Your task to perform on an android device: Open Google Maps and go to "Timeline" Image 0: 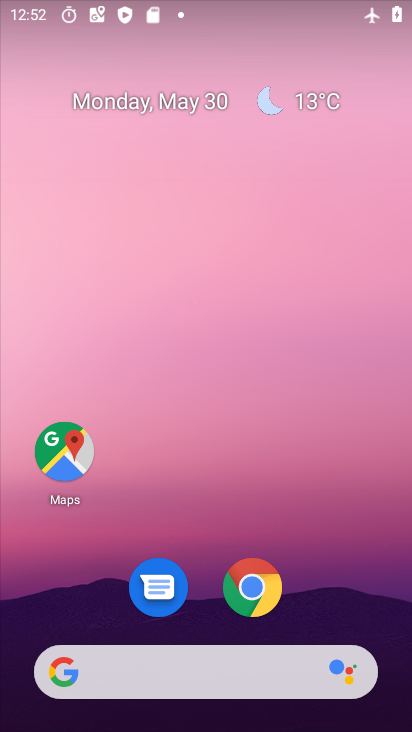
Step 0: click (58, 446)
Your task to perform on an android device: Open Google Maps and go to "Timeline" Image 1: 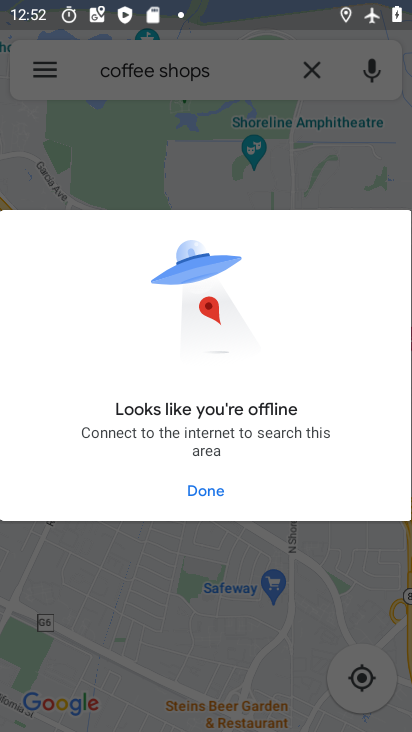
Step 1: click (204, 485)
Your task to perform on an android device: Open Google Maps and go to "Timeline" Image 2: 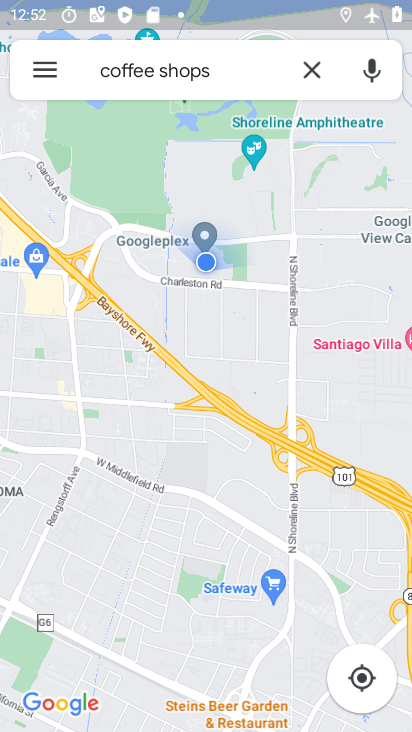
Step 2: click (40, 63)
Your task to perform on an android device: Open Google Maps and go to "Timeline" Image 3: 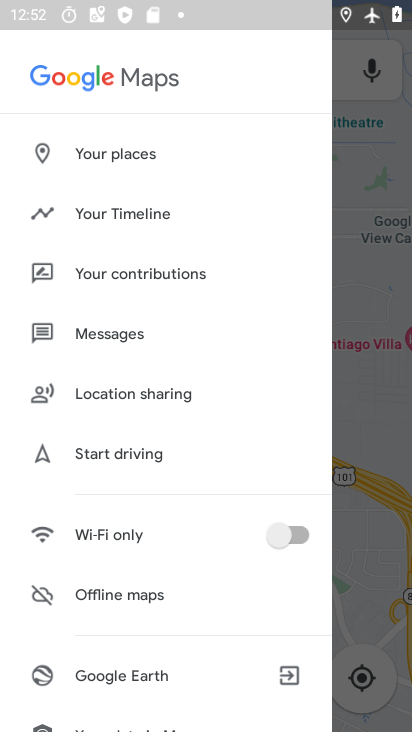
Step 3: drag from (166, 560) to (166, 656)
Your task to perform on an android device: Open Google Maps and go to "Timeline" Image 4: 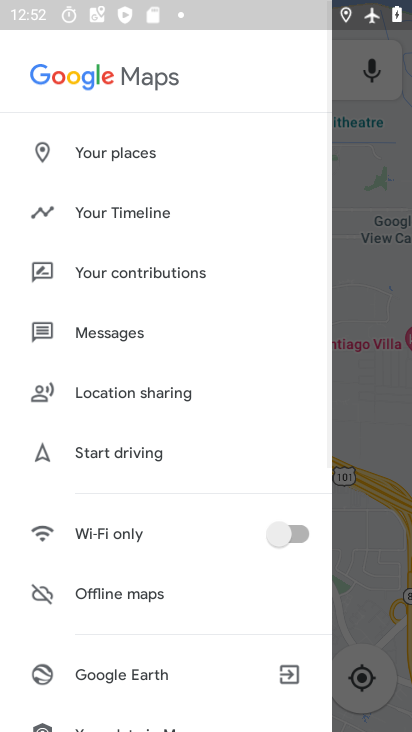
Step 4: click (145, 227)
Your task to perform on an android device: Open Google Maps and go to "Timeline" Image 5: 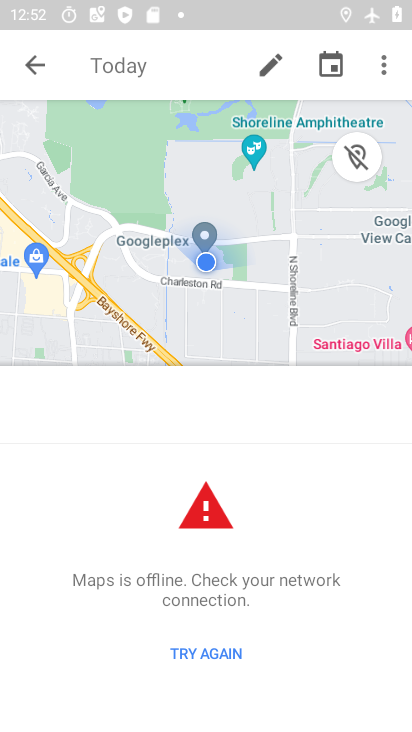
Step 5: task complete